Your task to perform on an android device: Open internet settings Image 0: 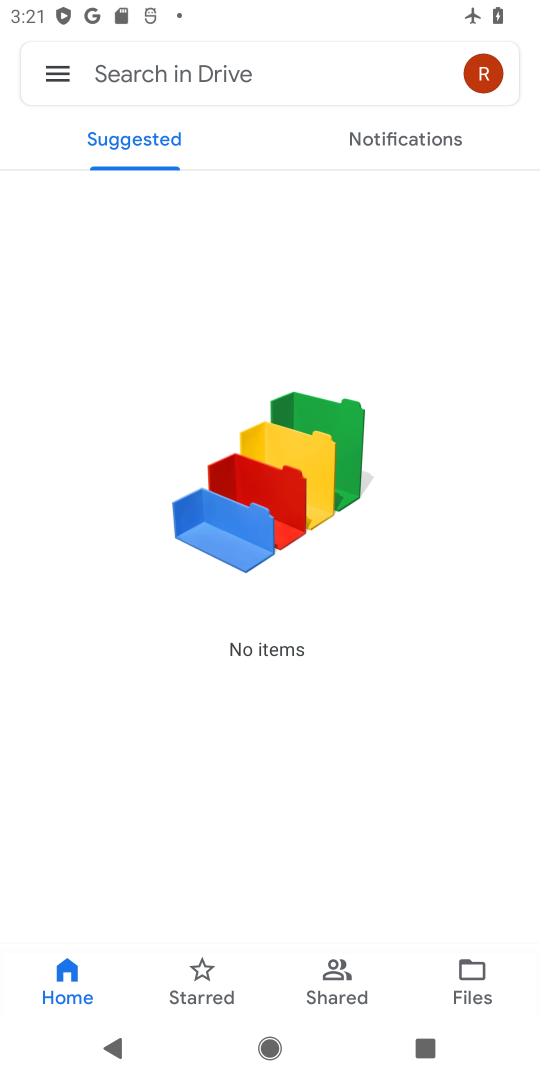
Step 0: press home button
Your task to perform on an android device: Open internet settings Image 1: 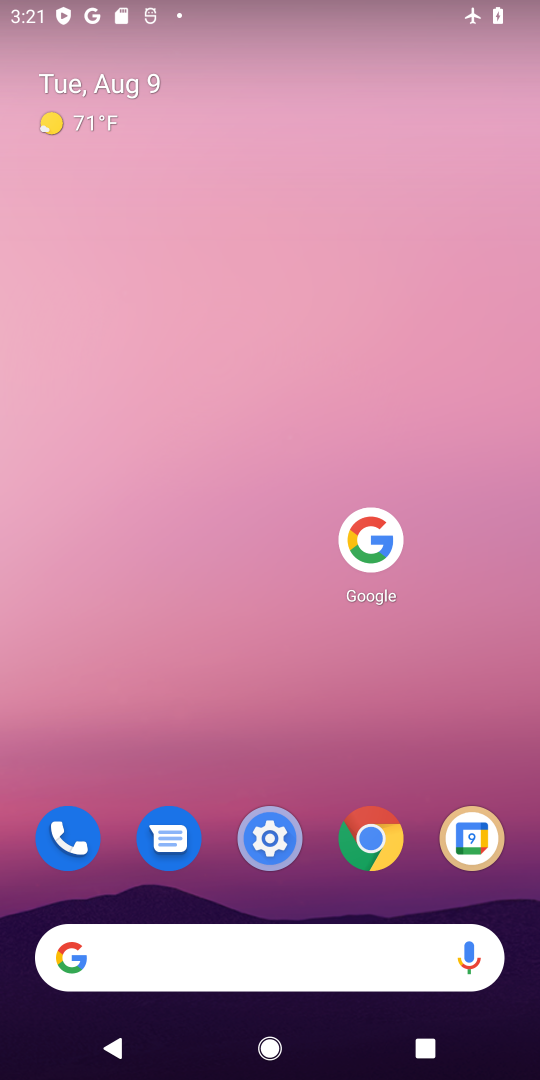
Step 1: drag from (481, 684) to (460, 72)
Your task to perform on an android device: Open internet settings Image 2: 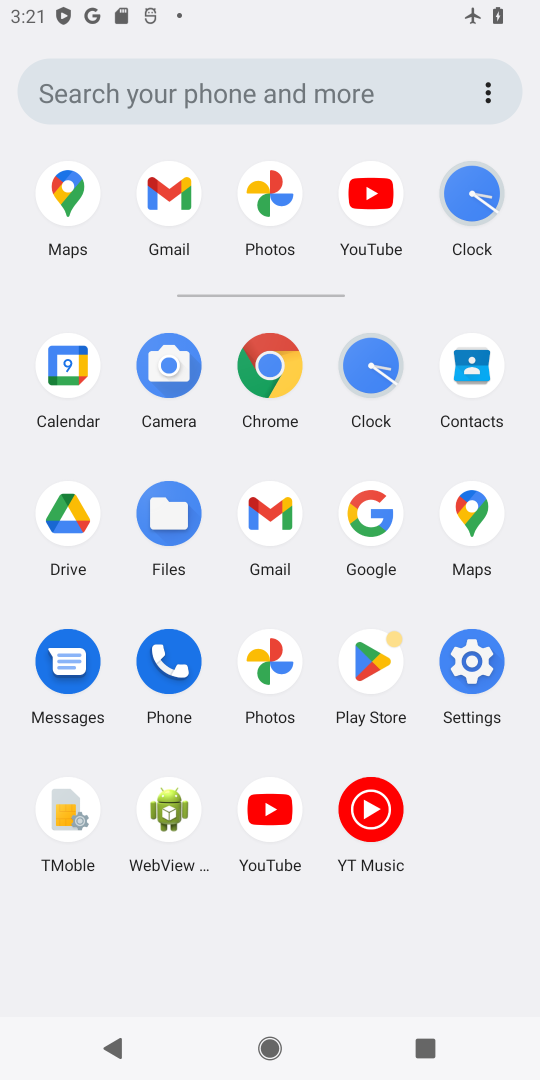
Step 2: click (468, 656)
Your task to perform on an android device: Open internet settings Image 3: 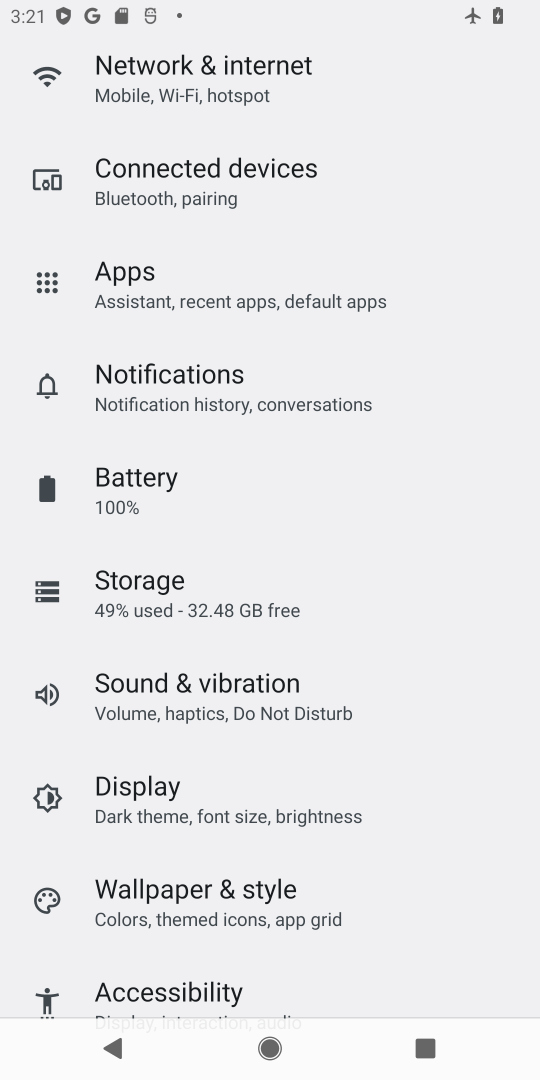
Step 3: click (243, 80)
Your task to perform on an android device: Open internet settings Image 4: 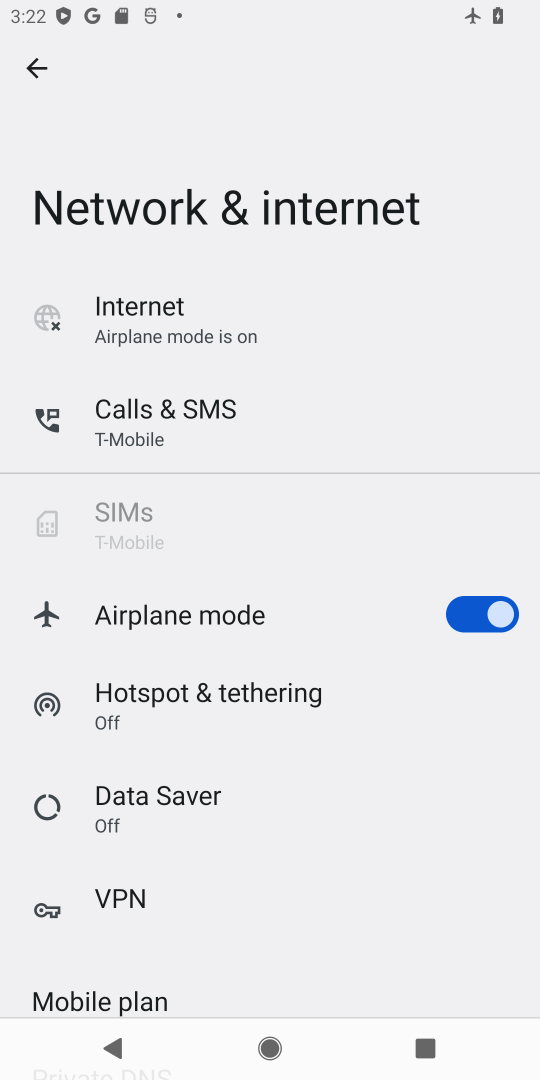
Step 4: click (114, 331)
Your task to perform on an android device: Open internet settings Image 5: 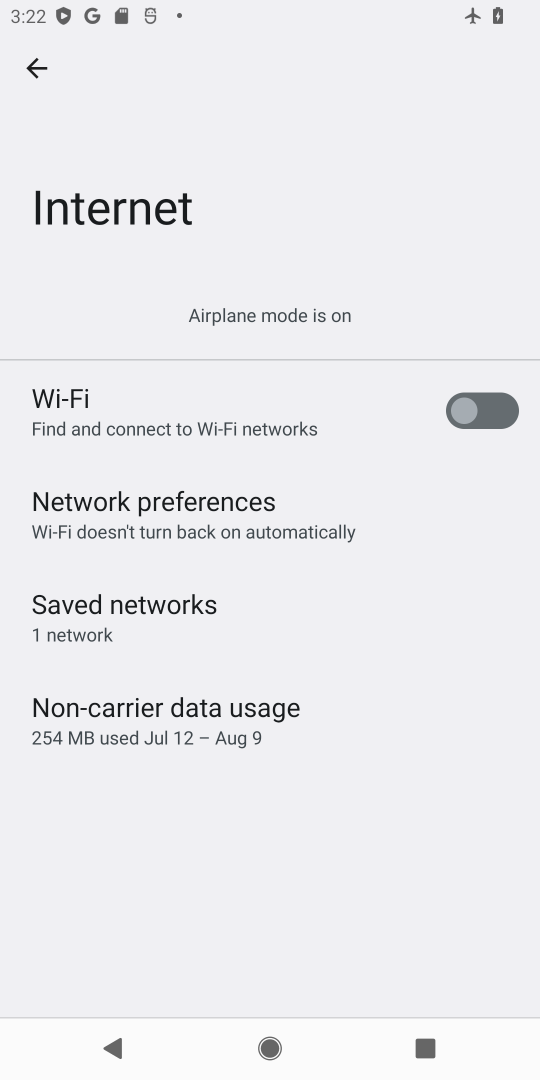
Step 5: task complete